Your task to perform on an android device: add a contact Image 0: 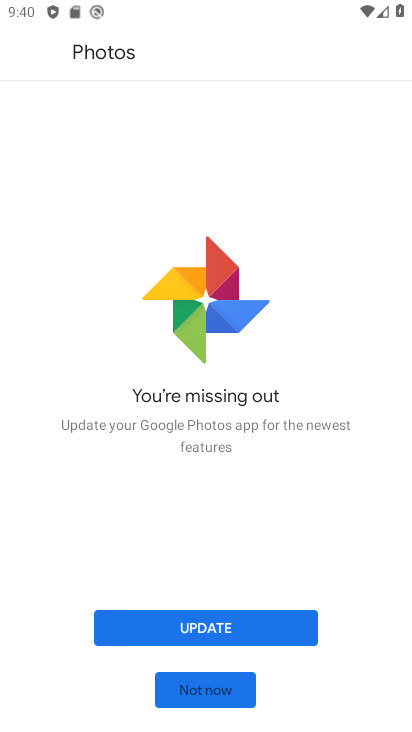
Step 0: press back button
Your task to perform on an android device: add a contact Image 1: 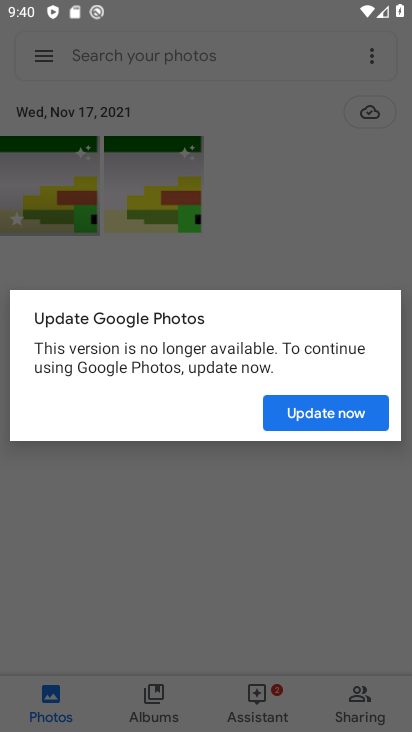
Step 1: press home button
Your task to perform on an android device: add a contact Image 2: 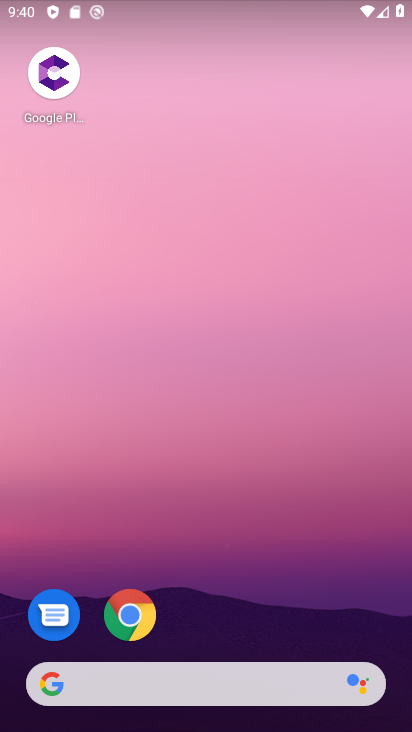
Step 2: drag from (227, 653) to (220, 360)
Your task to perform on an android device: add a contact Image 3: 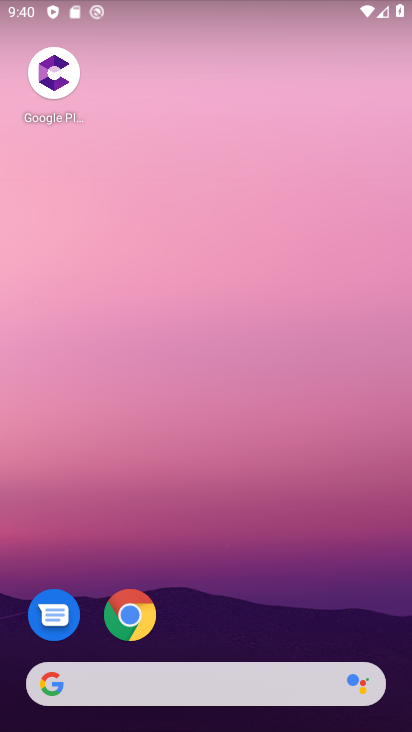
Step 3: drag from (179, 636) to (174, 384)
Your task to perform on an android device: add a contact Image 4: 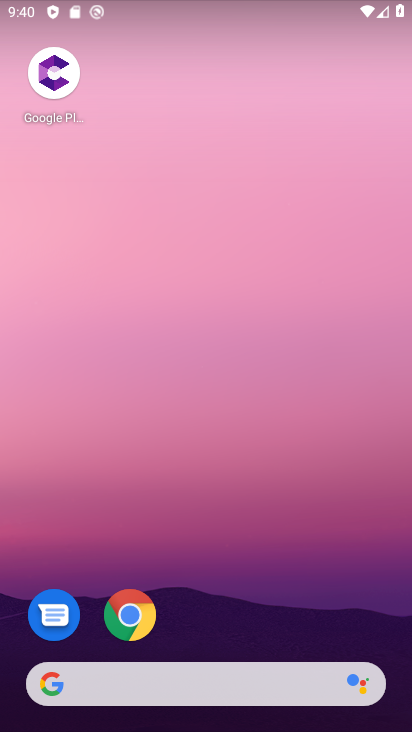
Step 4: drag from (259, 655) to (249, 293)
Your task to perform on an android device: add a contact Image 5: 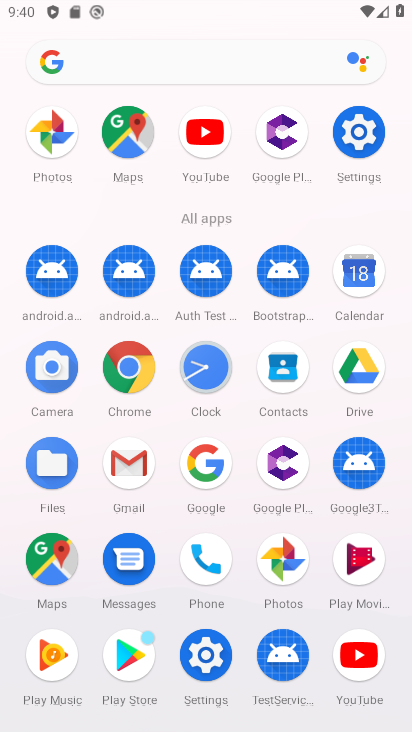
Step 5: click (283, 375)
Your task to perform on an android device: add a contact Image 6: 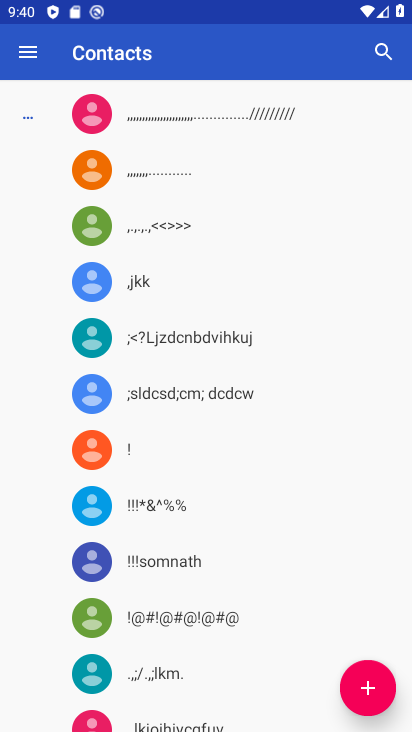
Step 6: click (356, 675)
Your task to perform on an android device: add a contact Image 7: 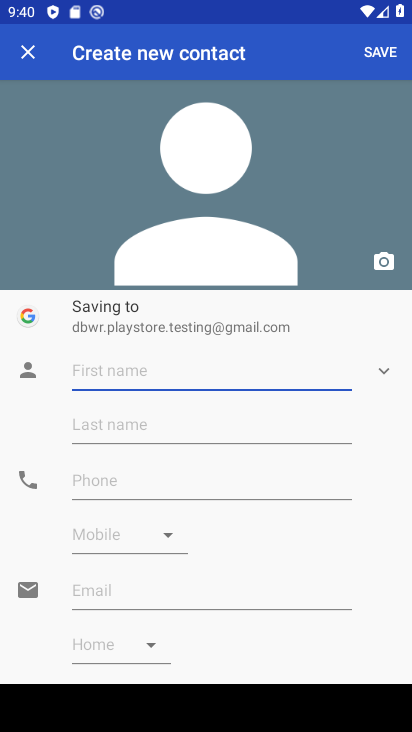
Step 7: click (160, 358)
Your task to perform on an android device: add a contact Image 8: 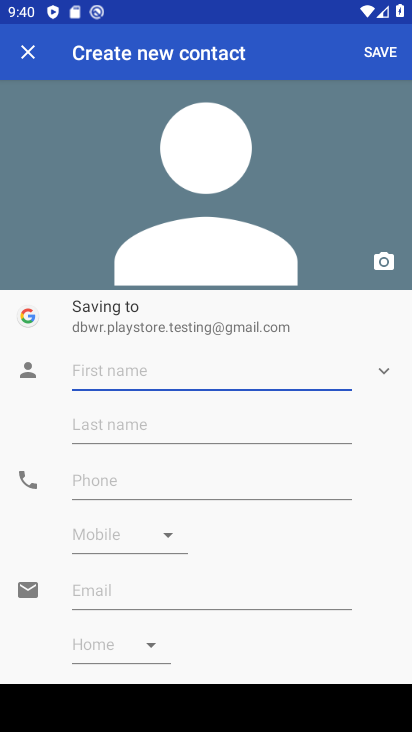
Step 8: type "stuti"
Your task to perform on an android device: add a contact Image 9: 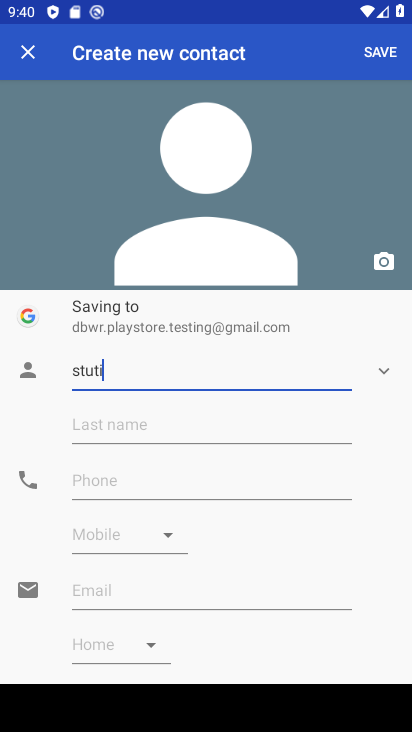
Step 9: click (125, 421)
Your task to perform on an android device: add a contact Image 10: 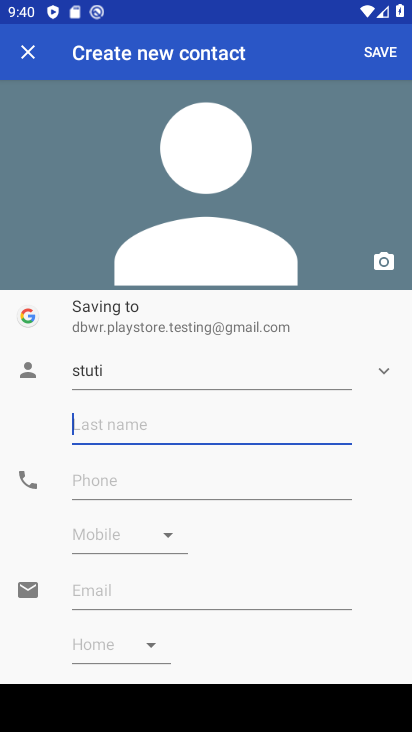
Step 10: type "rai"
Your task to perform on an android device: add a contact Image 11: 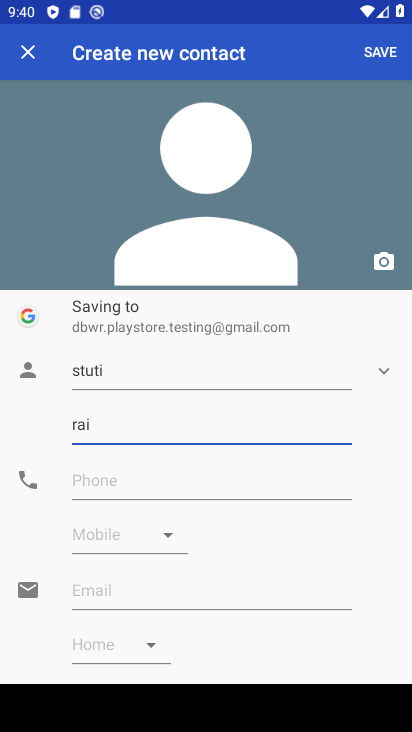
Step 11: click (95, 487)
Your task to perform on an android device: add a contact Image 12: 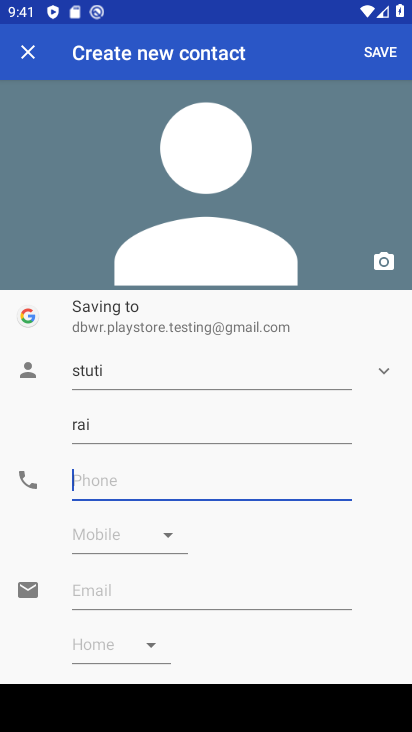
Step 12: type "9807358465"
Your task to perform on an android device: add a contact Image 13: 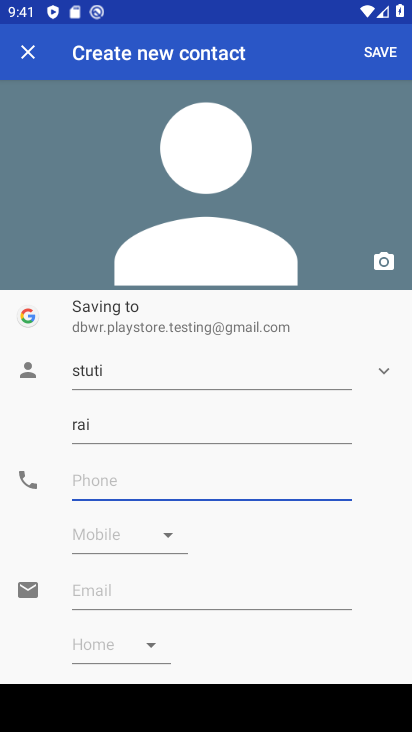
Step 13: click (104, 584)
Your task to perform on an android device: add a contact Image 14: 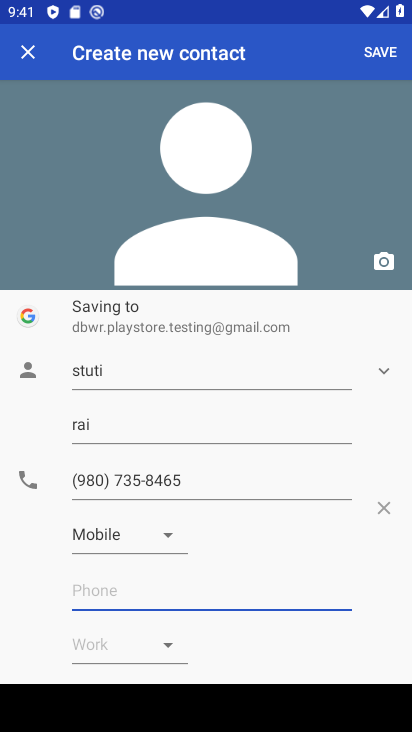
Step 14: drag from (213, 654) to (213, 315)
Your task to perform on an android device: add a contact Image 15: 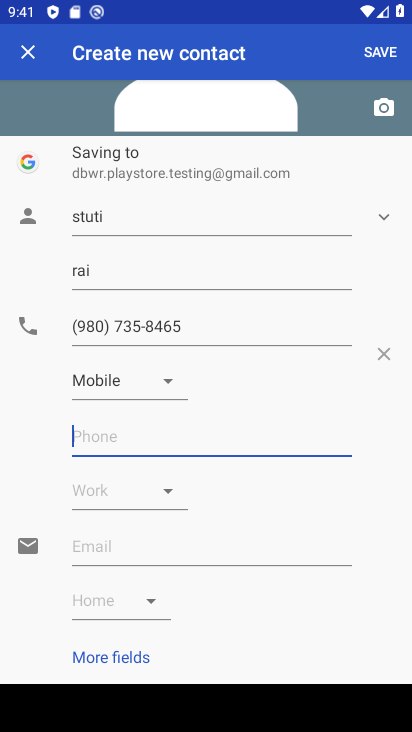
Step 15: drag from (184, 669) to (175, 500)
Your task to perform on an android device: add a contact Image 16: 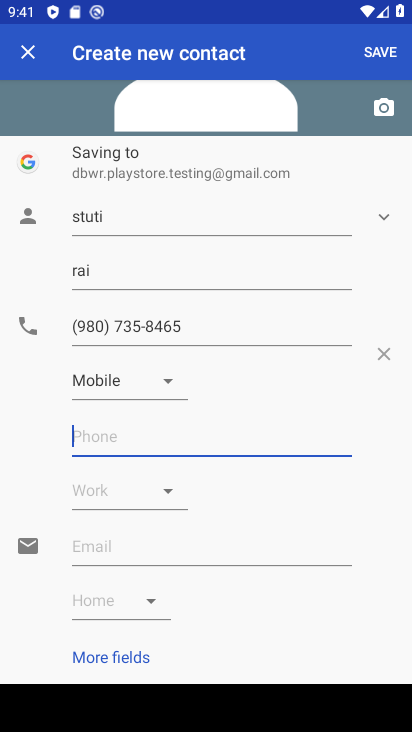
Step 16: click (370, 48)
Your task to perform on an android device: add a contact Image 17: 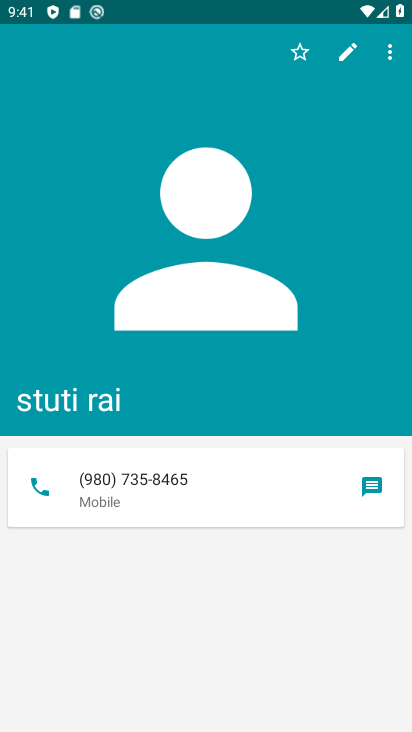
Step 17: task complete